Your task to perform on an android device: all mails in gmail Image 0: 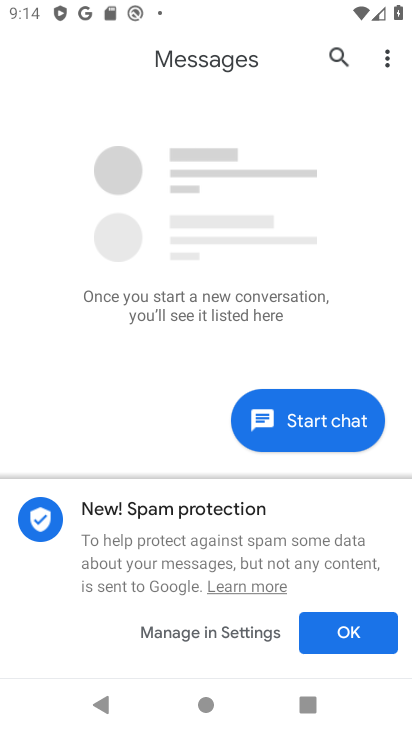
Step 0: press home button
Your task to perform on an android device: all mails in gmail Image 1: 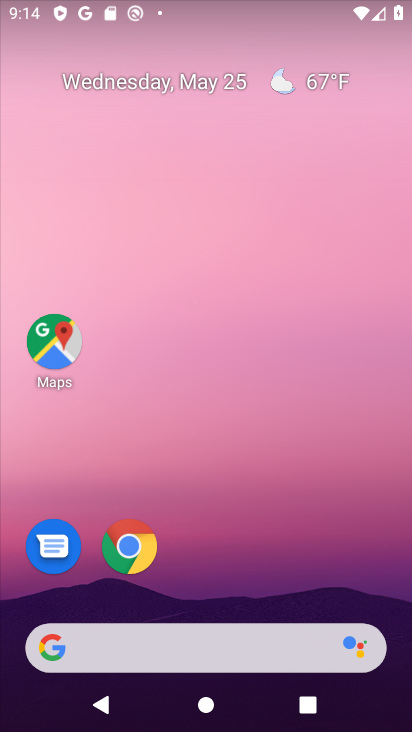
Step 1: drag from (160, 585) to (281, 88)
Your task to perform on an android device: all mails in gmail Image 2: 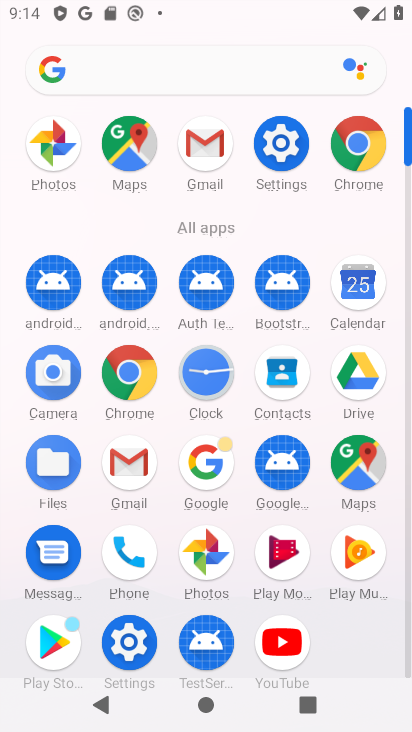
Step 2: click (127, 466)
Your task to perform on an android device: all mails in gmail Image 3: 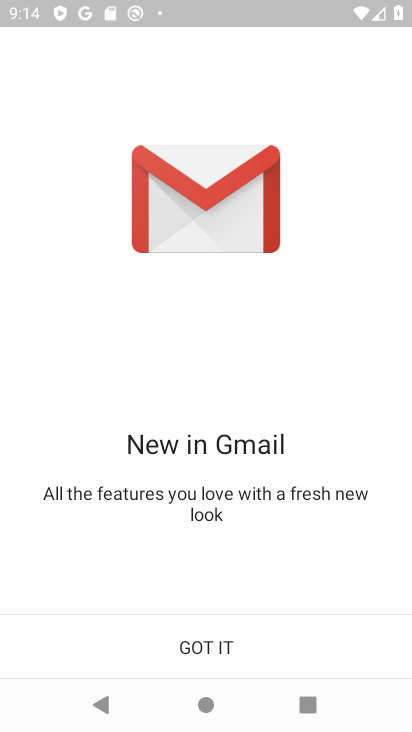
Step 3: click (240, 664)
Your task to perform on an android device: all mails in gmail Image 4: 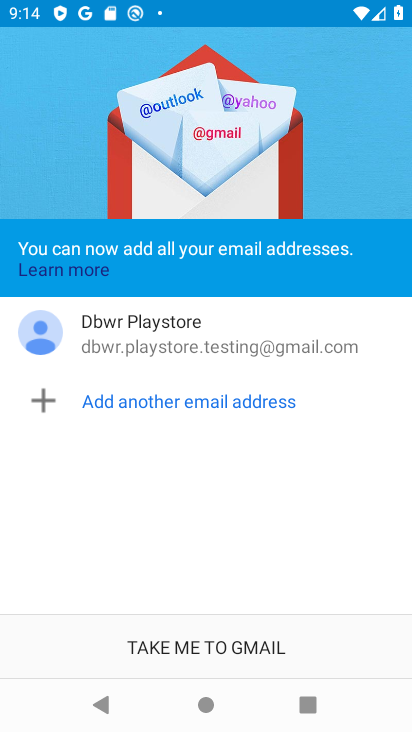
Step 4: click (241, 662)
Your task to perform on an android device: all mails in gmail Image 5: 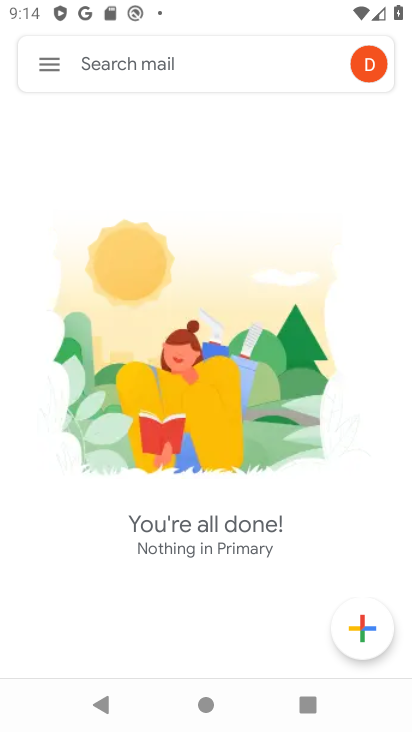
Step 5: click (61, 59)
Your task to perform on an android device: all mails in gmail Image 6: 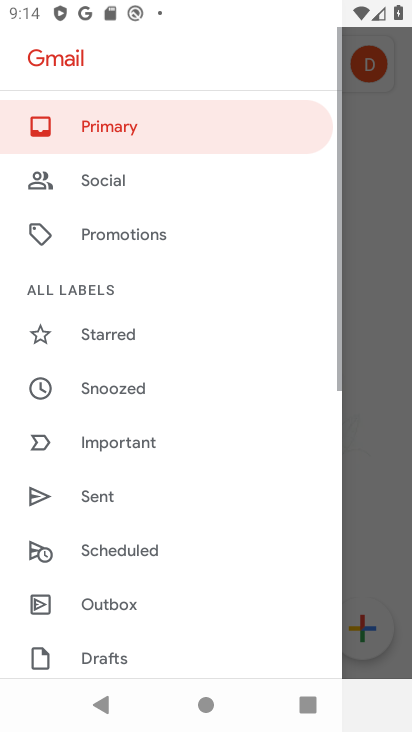
Step 6: drag from (158, 641) to (215, 418)
Your task to perform on an android device: all mails in gmail Image 7: 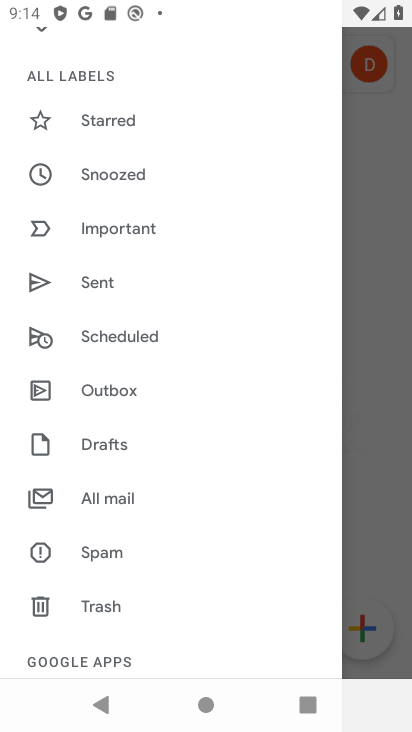
Step 7: click (180, 498)
Your task to perform on an android device: all mails in gmail Image 8: 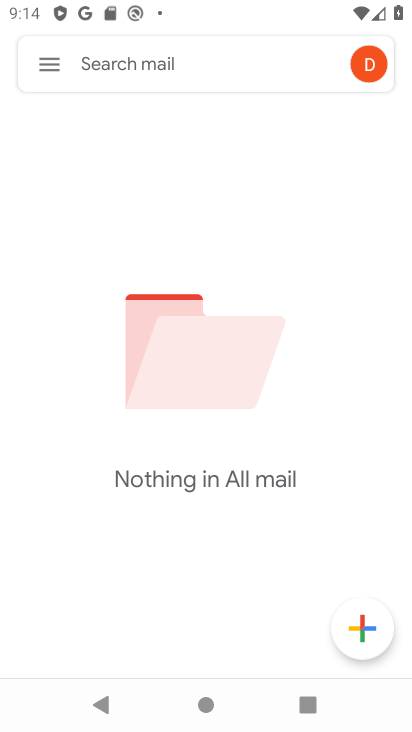
Step 8: task complete